Your task to perform on an android device: Look up the best rated bike on Walmart Image 0: 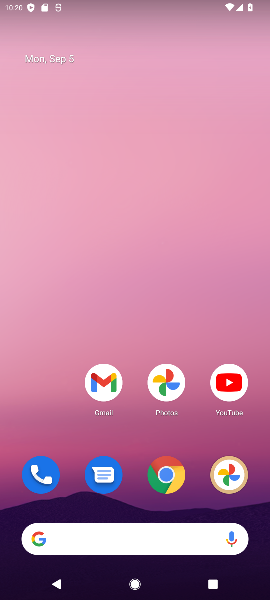
Step 0: click (240, 377)
Your task to perform on an android device: Look up the best rated bike on Walmart Image 1: 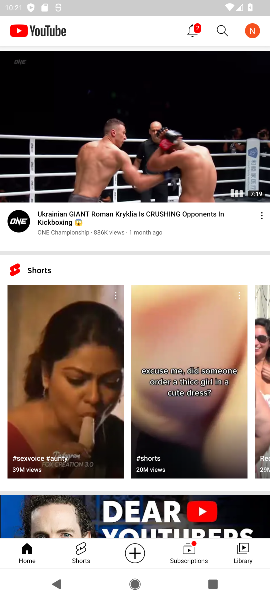
Step 1: task complete